Your task to perform on an android device: Open the calendar app, open the side menu, and click the "Day" option Image 0: 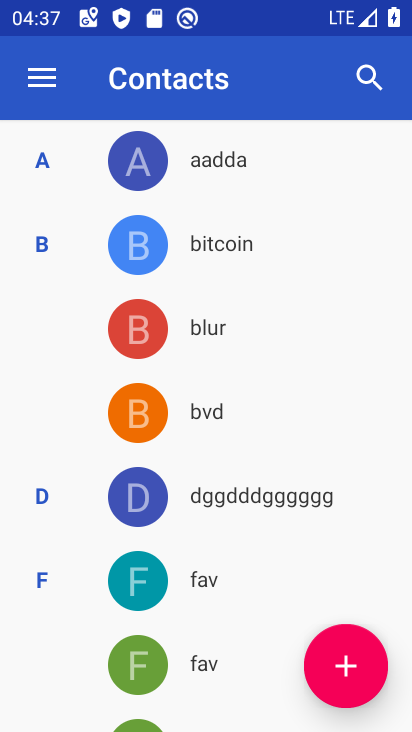
Step 0: press back button
Your task to perform on an android device: Open the calendar app, open the side menu, and click the "Day" option Image 1: 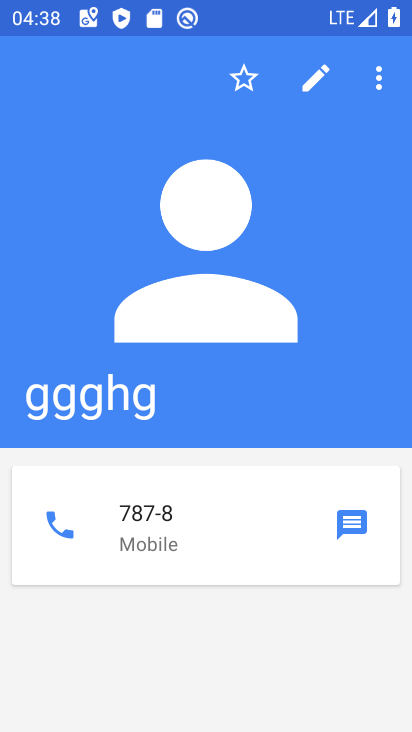
Step 1: press back button
Your task to perform on an android device: Open the calendar app, open the side menu, and click the "Day" option Image 2: 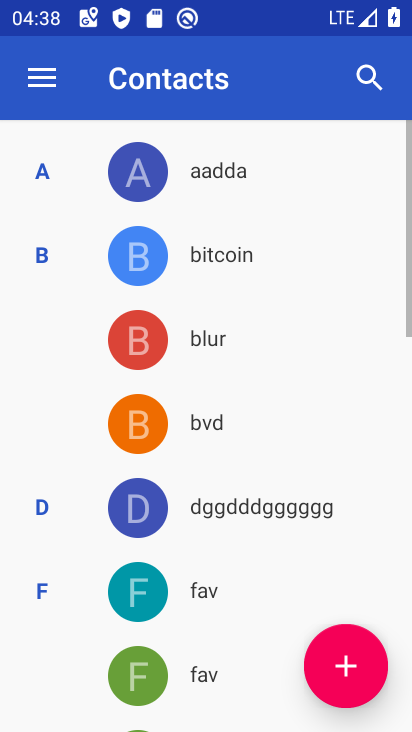
Step 2: press back button
Your task to perform on an android device: Open the calendar app, open the side menu, and click the "Day" option Image 3: 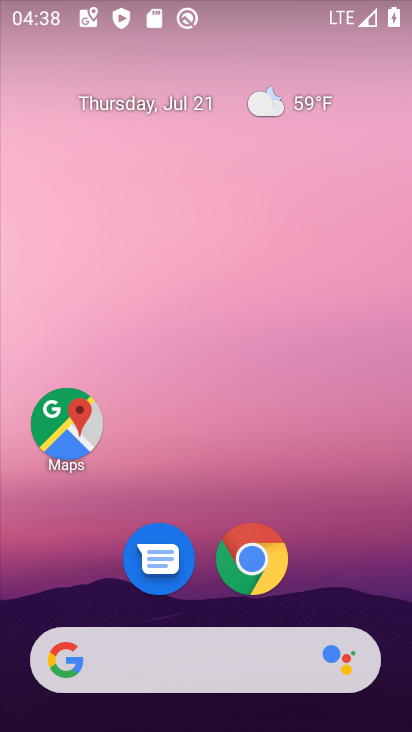
Step 3: drag from (77, 561) to (255, 18)
Your task to perform on an android device: Open the calendar app, open the side menu, and click the "Day" option Image 4: 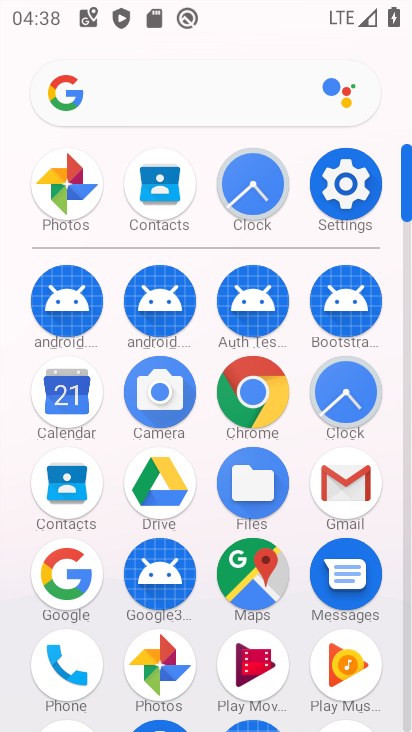
Step 4: click (63, 396)
Your task to perform on an android device: Open the calendar app, open the side menu, and click the "Day" option Image 5: 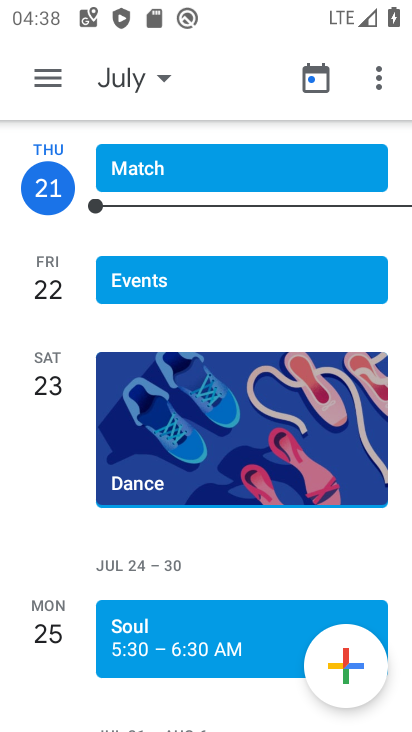
Step 5: click (43, 75)
Your task to perform on an android device: Open the calendar app, open the side menu, and click the "Day" option Image 6: 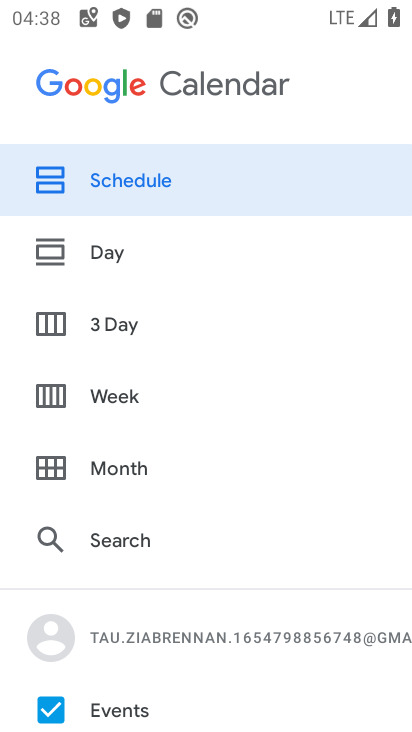
Step 6: click (97, 246)
Your task to perform on an android device: Open the calendar app, open the side menu, and click the "Day" option Image 7: 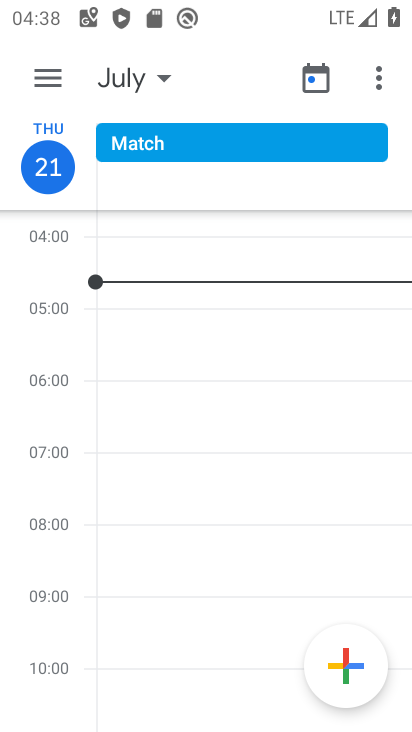
Step 7: click (54, 68)
Your task to perform on an android device: Open the calendar app, open the side menu, and click the "Day" option Image 8: 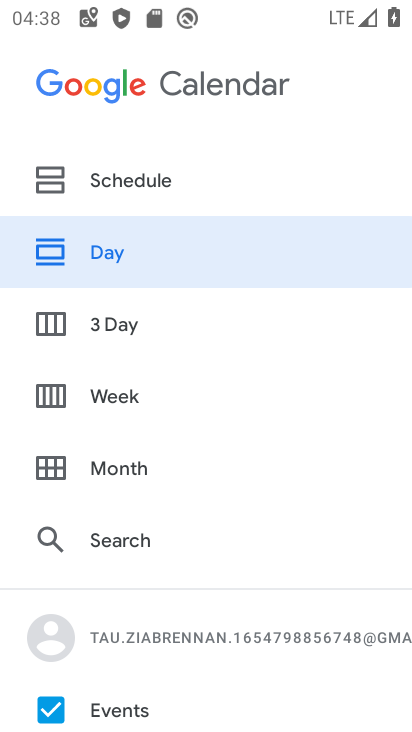
Step 8: click (113, 257)
Your task to perform on an android device: Open the calendar app, open the side menu, and click the "Day" option Image 9: 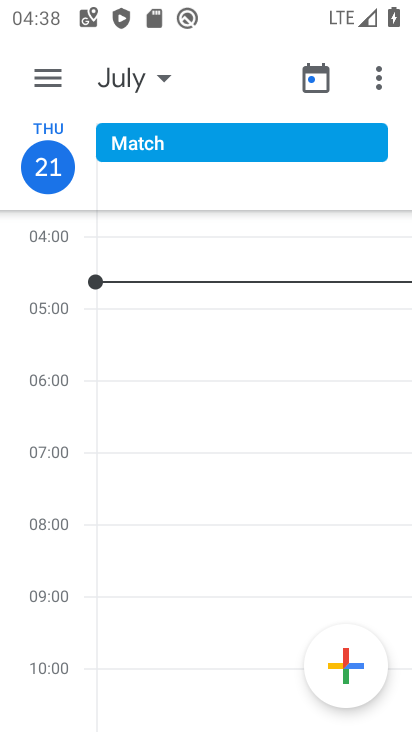
Step 9: task complete